Your task to perform on an android device: toggle wifi Image 0: 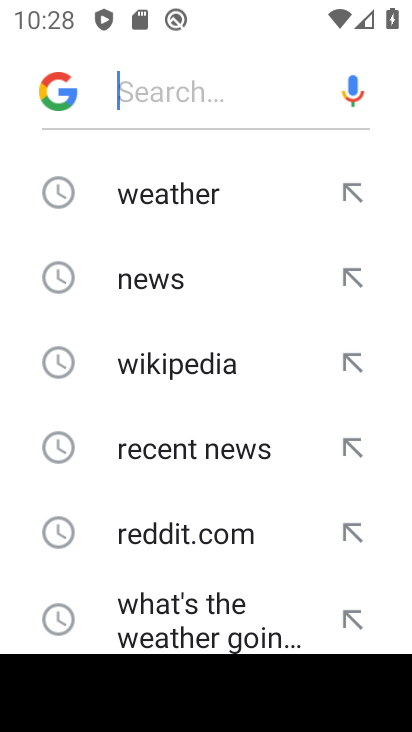
Step 0: press home button
Your task to perform on an android device: toggle wifi Image 1: 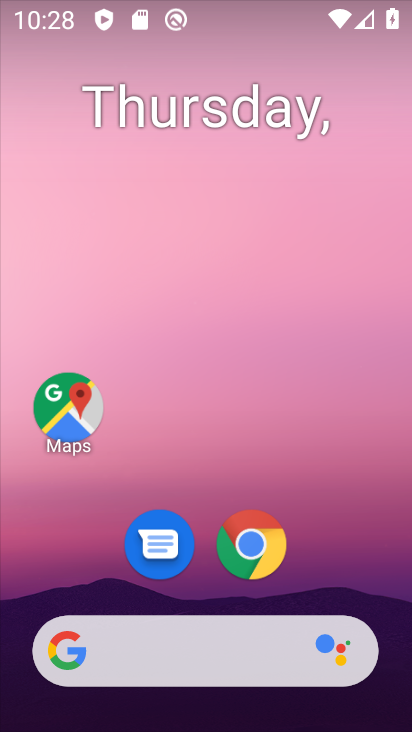
Step 1: drag from (189, 441) to (88, 64)
Your task to perform on an android device: toggle wifi Image 2: 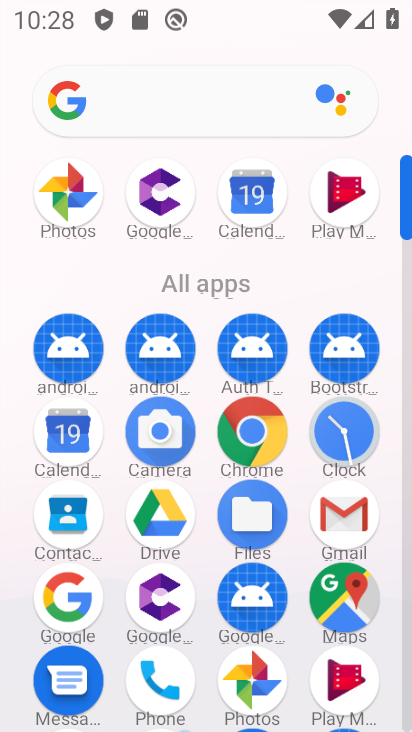
Step 2: drag from (210, 551) to (183, 225)
Your task to perform on an android device: toggle wifi Image 3: 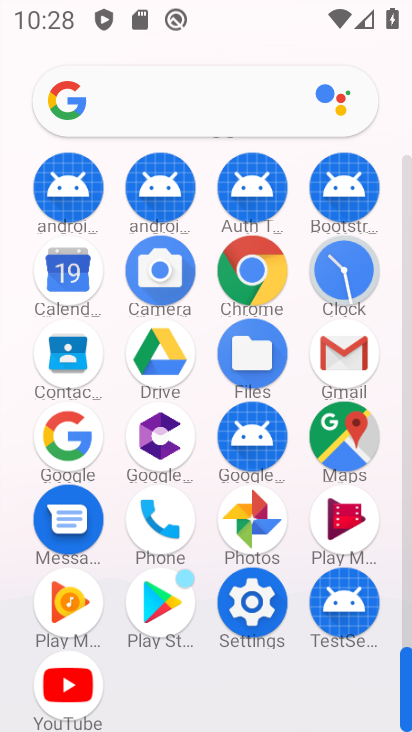
Step 3: click (251, 617)
Your task to perform on an android device: toggle wifi Image 4: 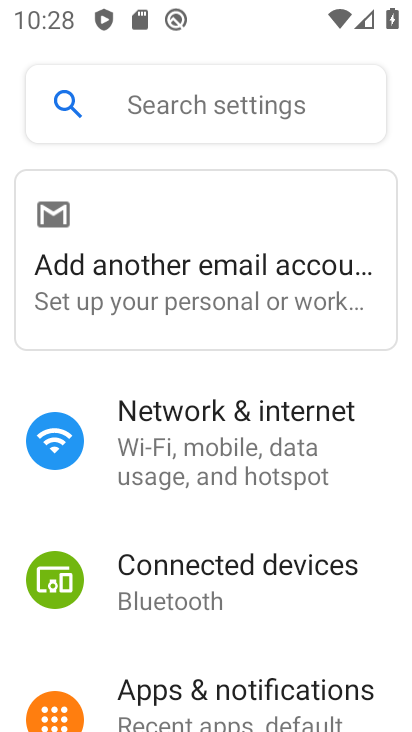
Step 4: click (171, 473)
Your task to perform on an android device: toggle wifi Image 5: 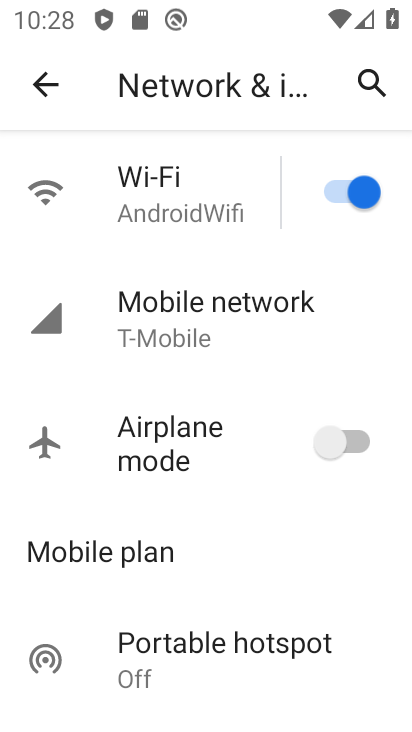
Step 5: click (351, 197)
Your task to perform on an android device: toggle wifi Image 6: 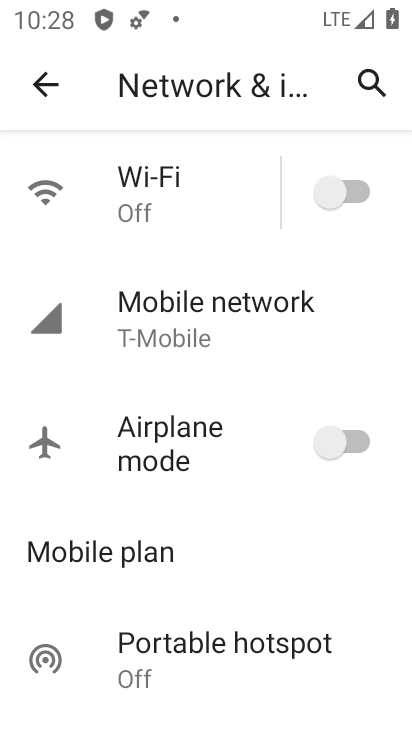
Step 6: task complete